Your task to perform on an android device: toggle airplane mode Image 0: 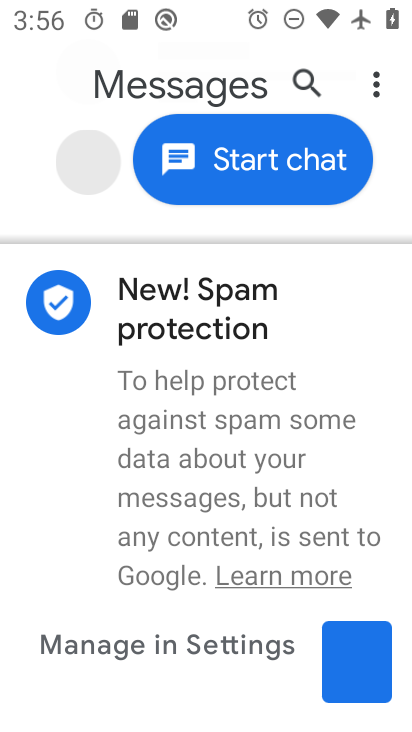
Step 0: press home button
Your task to perform on an android device: toggle airplane mode Image 1: 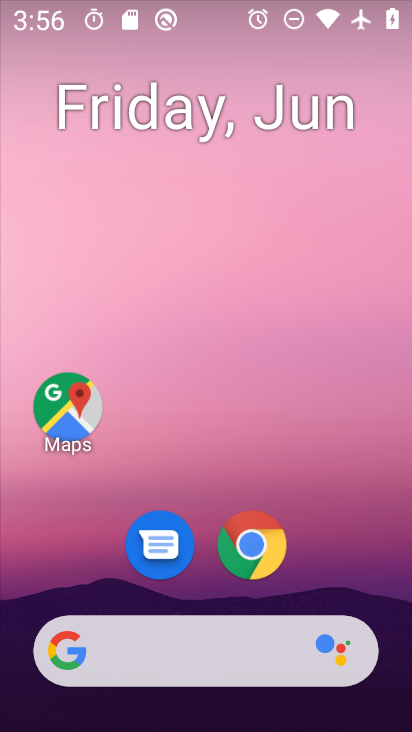
Step 1: drag from (392, 549) to (324, 25)
Your task to perform on an android device: toggle airplane mode Image 2: 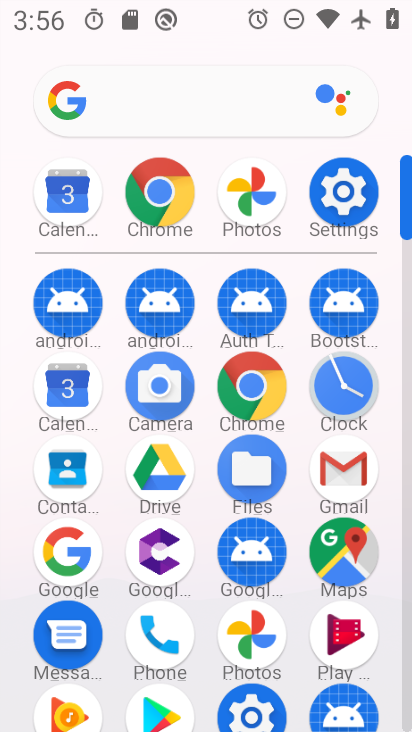
Step 2: click (334, 194)
Your task to perform on an android device: toggle airplane mode Image 3: 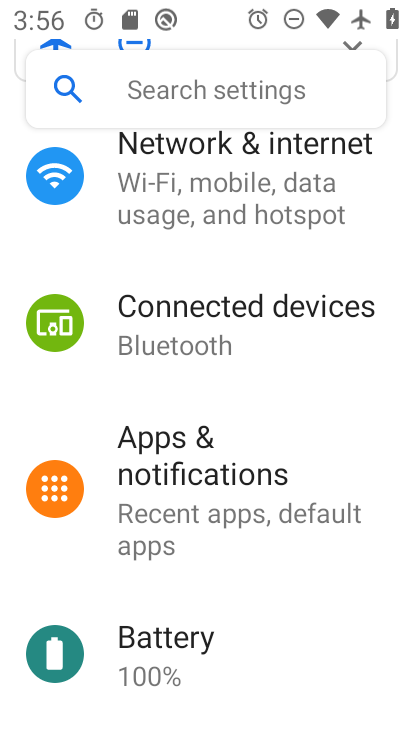
Step 3: click (217, 206)
Your task to perform on an android device: toggle airplane mode Image 4: 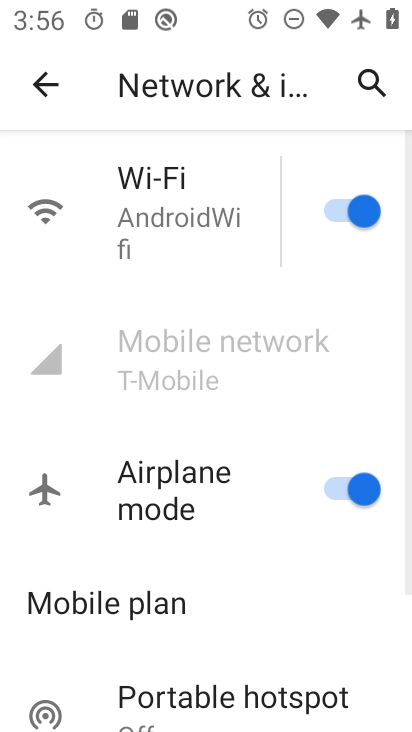
Step 4: click (338, 496)
Your task to perform on an android device: toggle airplane mode Image 5: 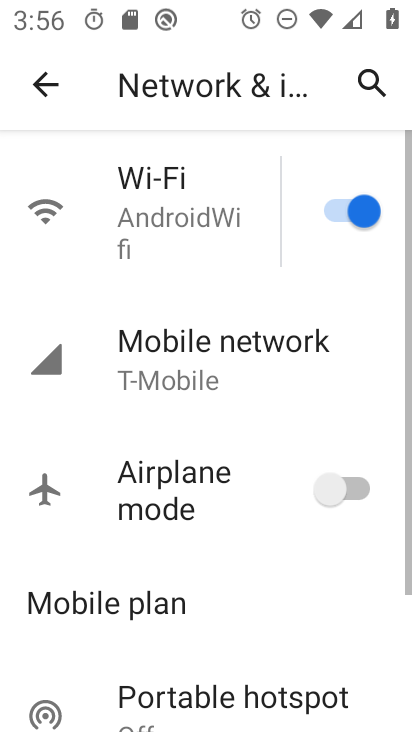
Step 5: task complete